Your task to perform on an android device: Go to settings Image 0: 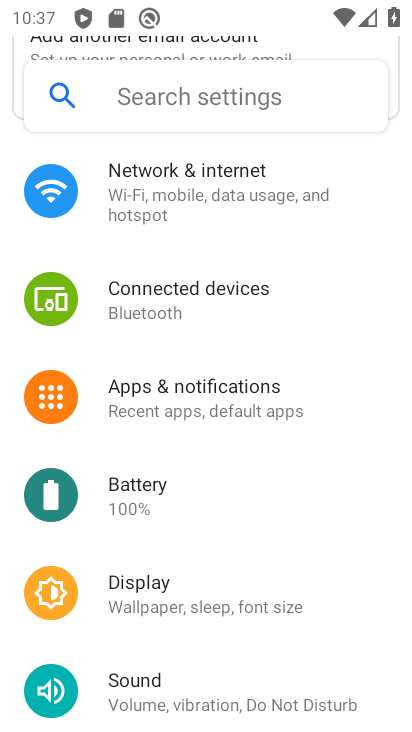
Step 0: press home button
Your task to perform on an android device: Go to settings Image 1: 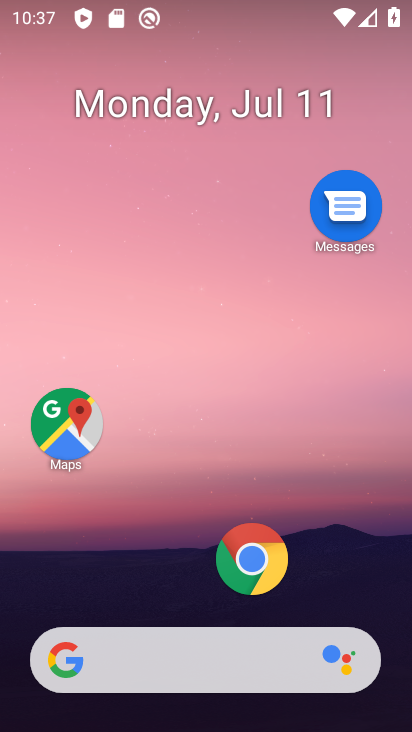
Step 1: drag from (354, 597) to (382, 152)
Your task to perform on an android device: Go to settings Image 2: 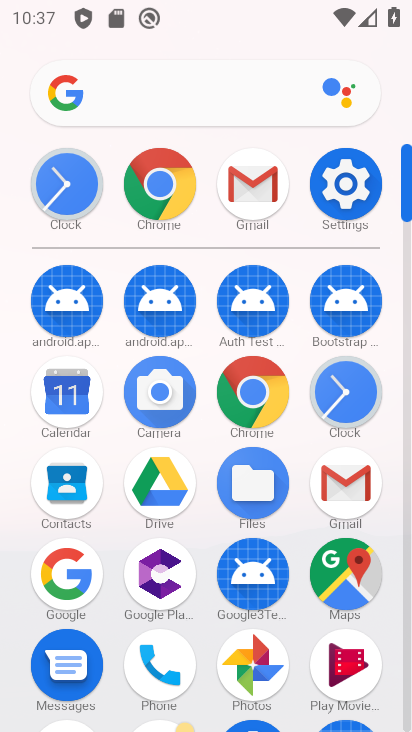
Step 2: click (358, 190)
Your task to perform on an android device: Go to settings Image 3: 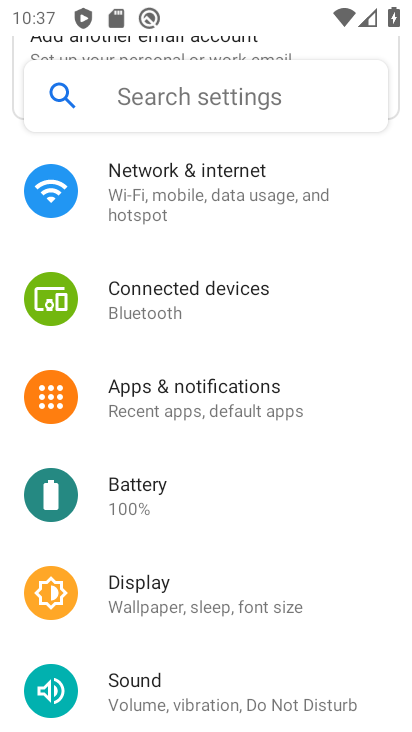
Step 3: task complete